Your task to perform on an android device: add a contact in the contacts app Image 0: 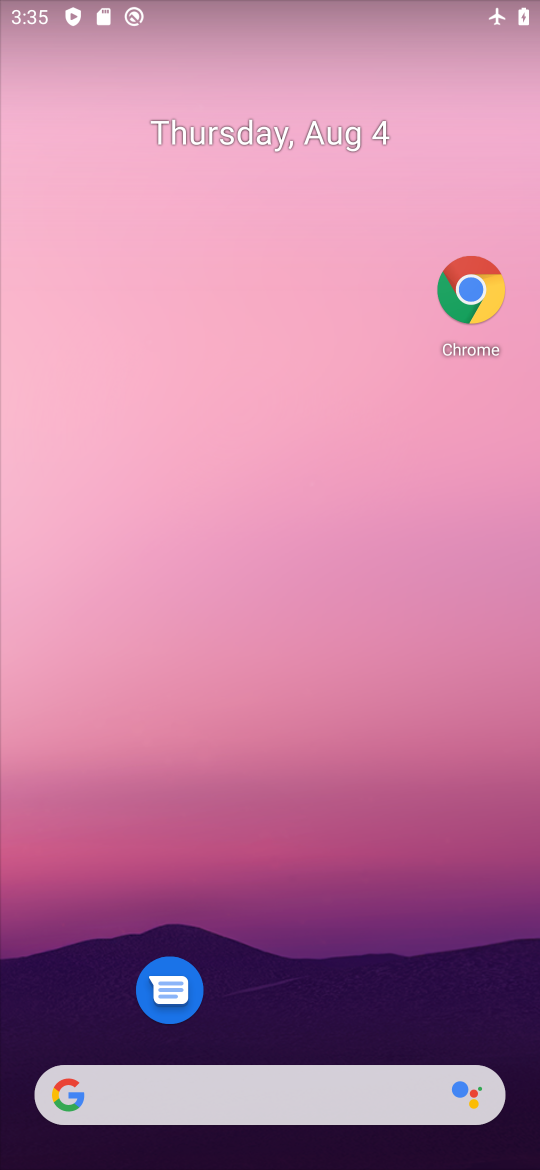
Step 0: drag from (338, 1036) to (320, 145)
Your task to perform on an android device: add a contact in the contacts app Image 1: 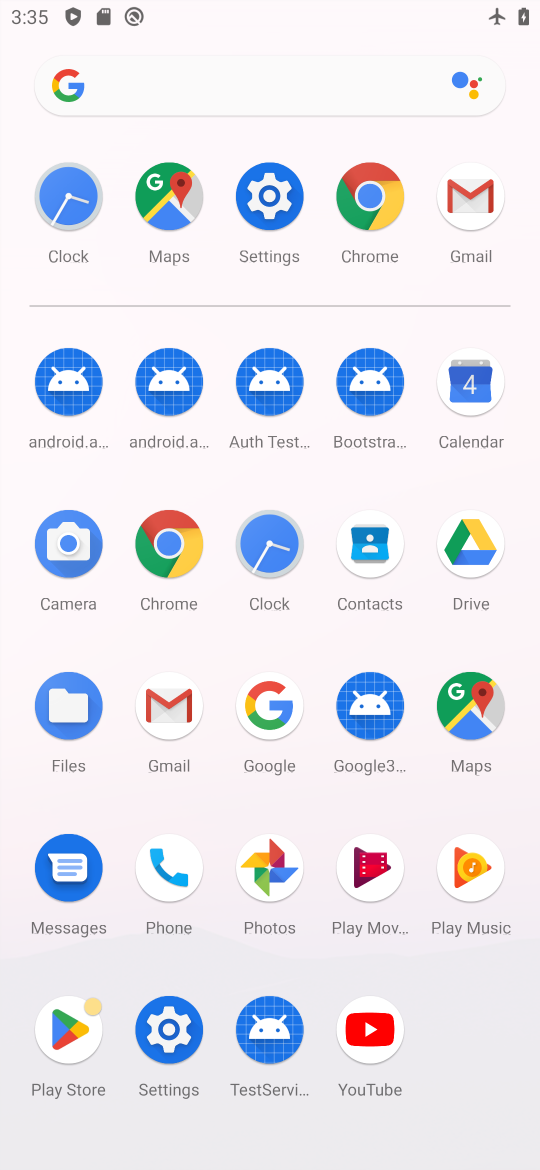
Step 1: click (345, 557)
Your task to perform on an android device: add a contact in the contacts app Image 2: 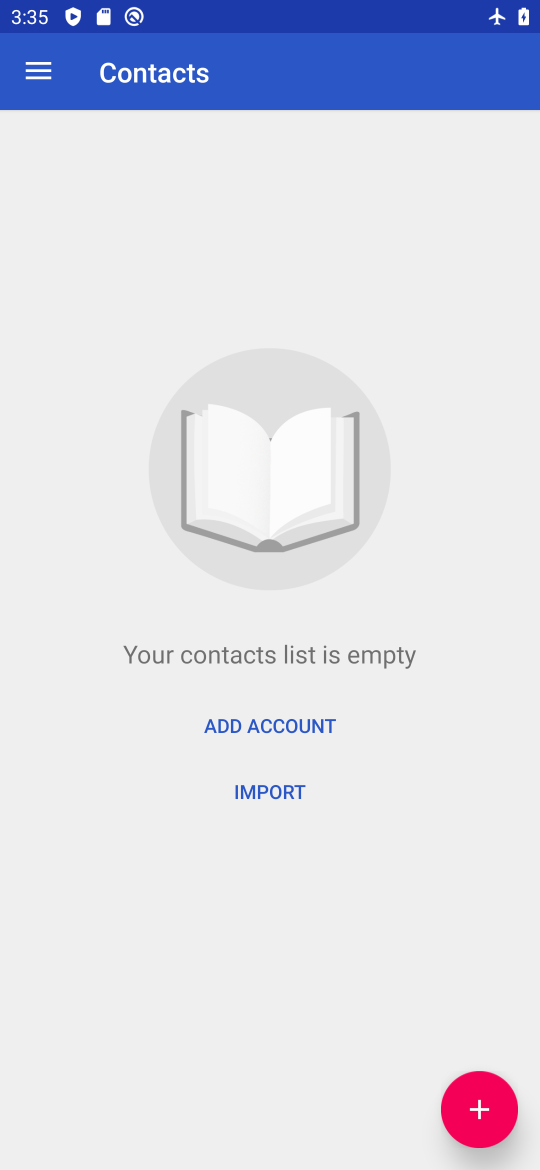
Step 2: click (468, 1126)
Your task to perform on an android device: add a contact in the contacts app Image 3: 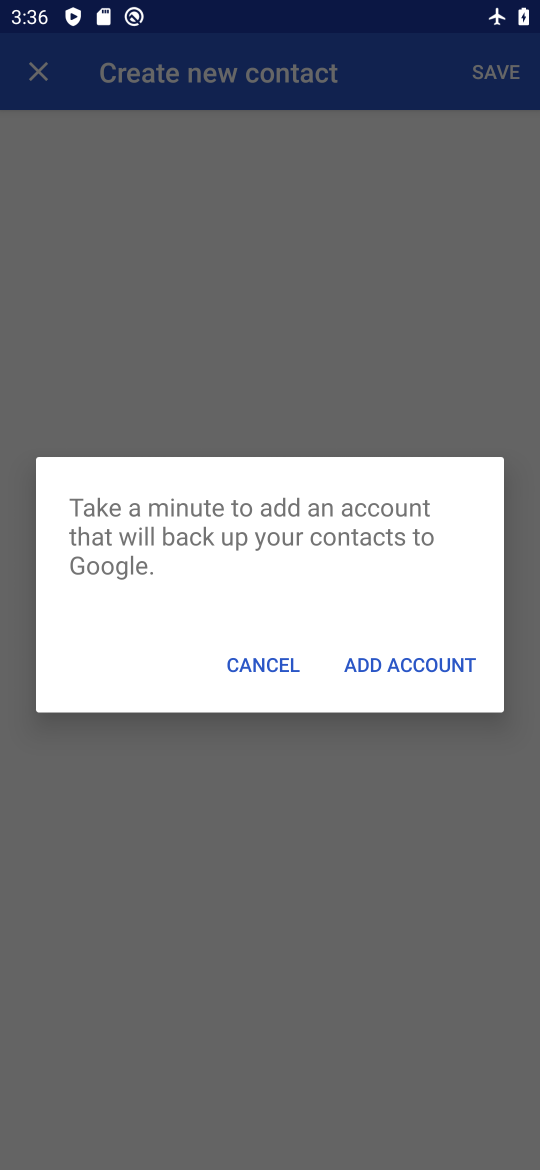
Step 3: task complete